Your task to perform on an android device: Go to accessibility settings Image 0: 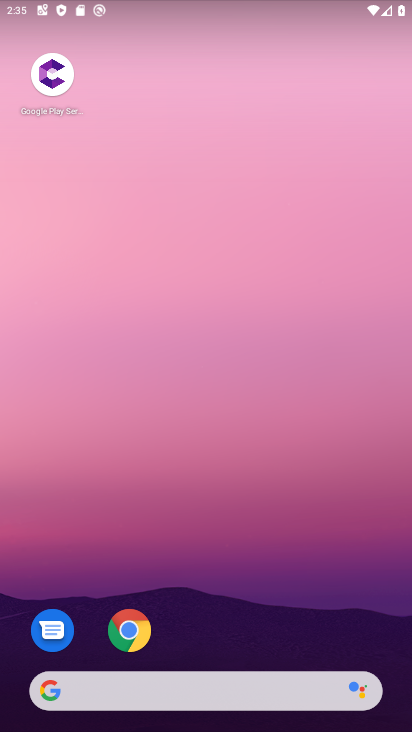
Step 0: drag from (336, 621) to (369, 166)
Your task to perform on an android device: Go to accessibility settings Image 1: 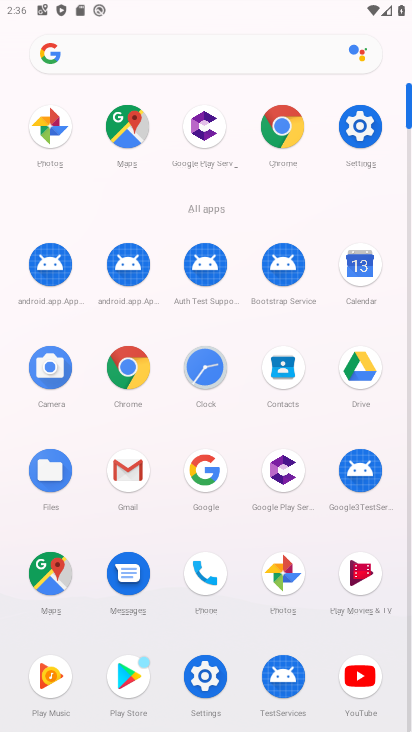
Step 1: click (359, 141)
Your task to perform on an android device: Go to accessibility settings Image 2: 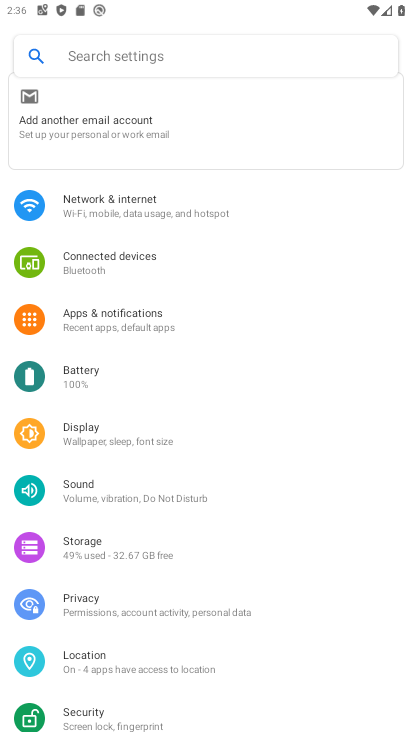
Step 2: drag from (330, 432) to (330, 366)
Your task to perform on an android device: Go to accessibility settings Image 3: 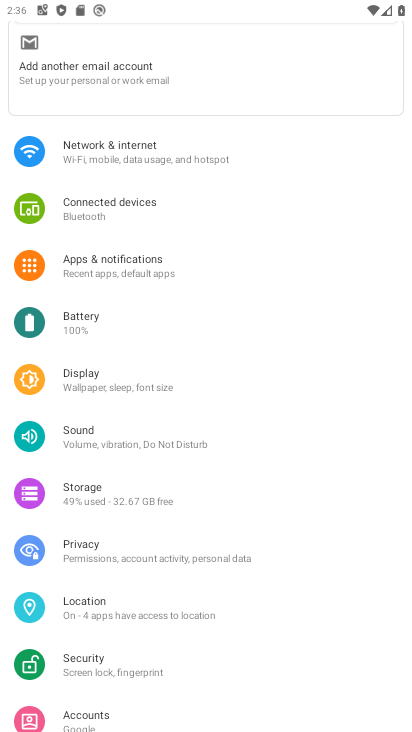
Step 3: drag from (329, 445) to (329, 390)
Your task to perform on an android device: Go to accessibility settings Image 4: 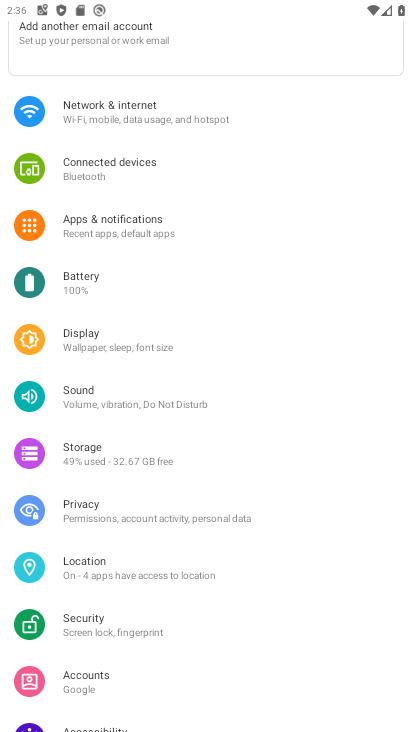
Step 4: drag from (330, 440) to (338, 338)
Your task to perform on an android device: Go to accessibility settings Image 5: 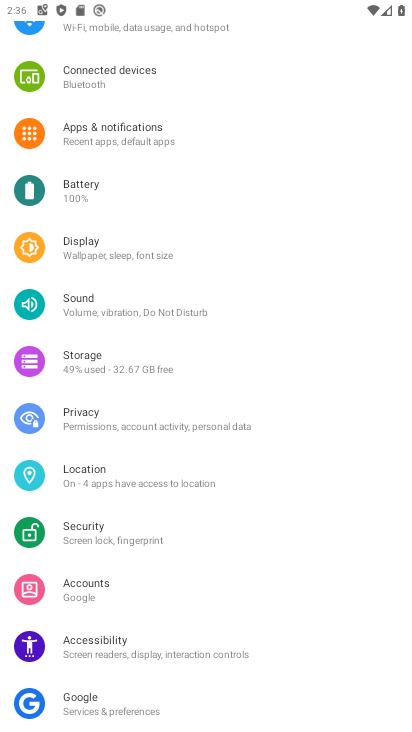
Step 5: drag from (326, 400) to (325, 310)
Your task to perform on an android device: Go to accessibility settings Image 6: 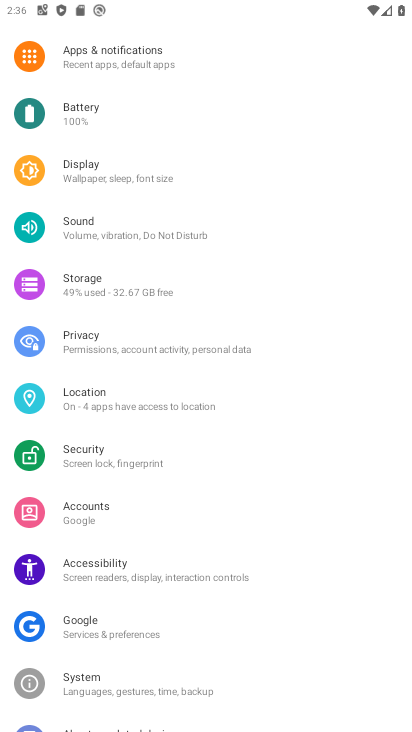
Step 6: drag from (313, 421) to (316, 330)
Your task to perform on an android device: Go to accessibility settings Image 7: 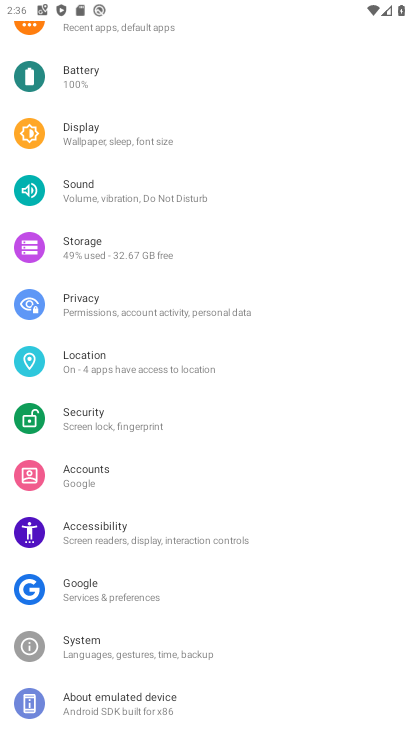
Step 7: click (267, 533)
Your task to perform on an android device: Go to accessibility settings Image 8: 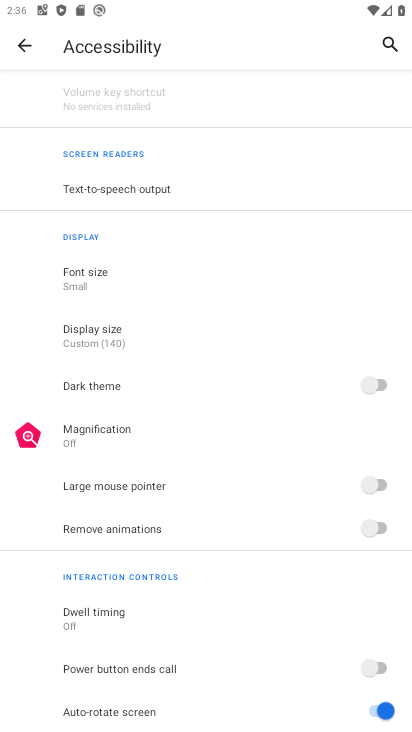
Step 8: task complete